Your task to perform on an android device: turn off sleep mode Image 0: 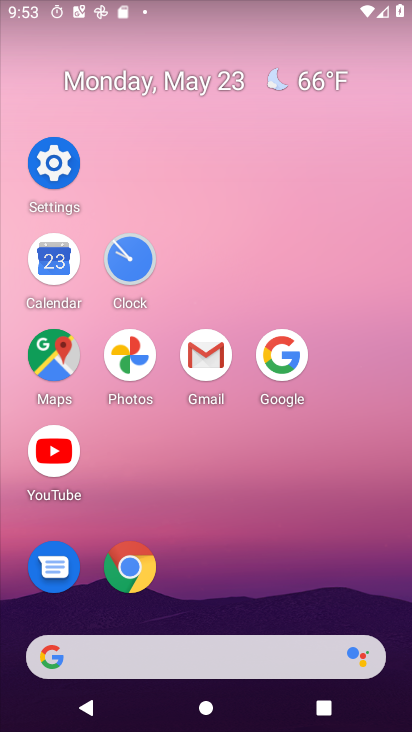
Step 0: click (75, 171)
Your task to perform on an android device: turn off sleep mode Image 1: 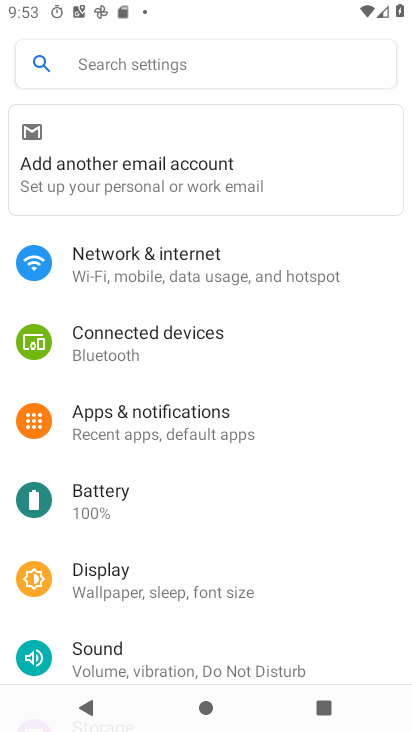
Step 1: click (230, 587)
Your task to perform on an android device: turn off sleep mode Image 2: 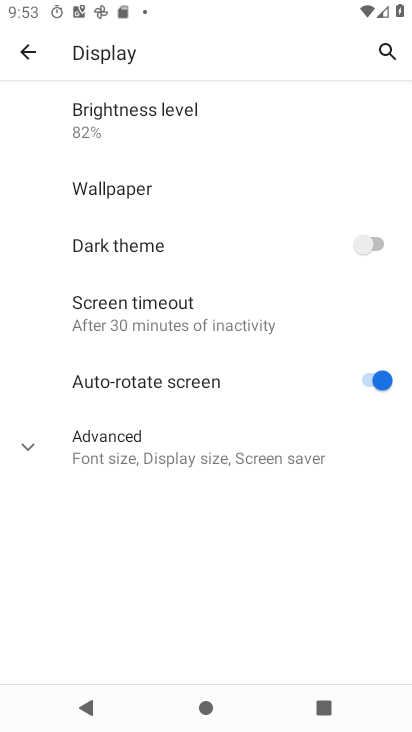
Step 2: click (208, 300)
Your task to perform on an android device: turn off sleep mode Image 3: 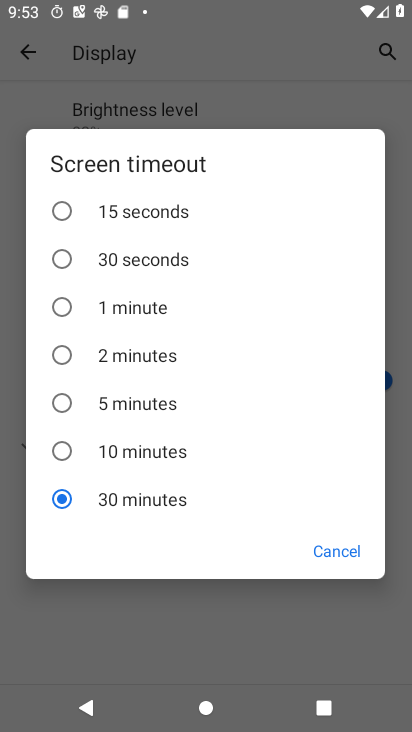
Step 3: task complete